Your task to perform on an android device: Go to CNN.com Image 0: 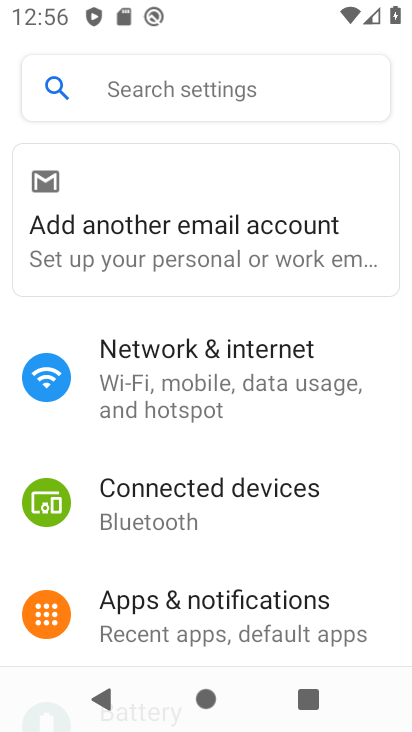
Step 0: press back button
Your task to perform on an android device: Go to CNN.com Image 1: 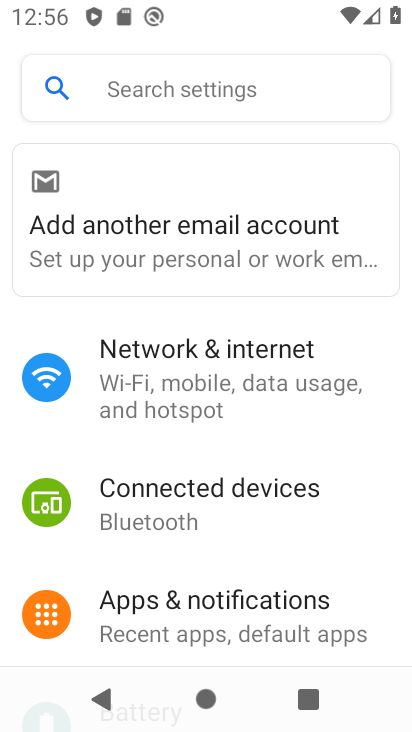
Step 1: press back button
Your task to perform on an android device: Go to CNN.com Image 2: 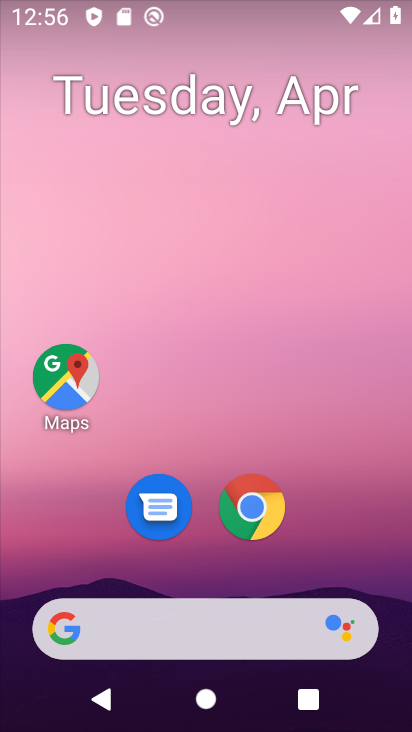
Step 2: click (263, 491)
Your task to perform on an android device: Go to CNN.com Image 3: 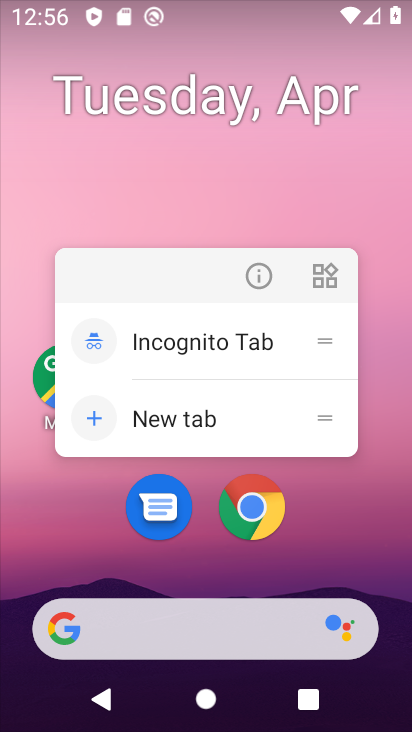
Step 3: click (241, 503)
Your task to perform on an android device: Go to CNN.com Image 4: 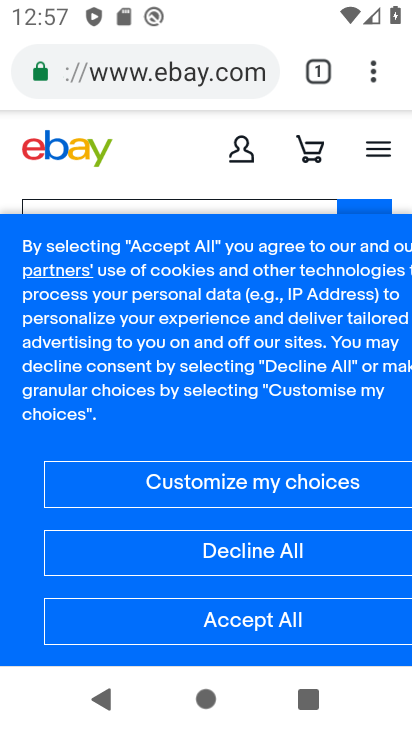
Step 4: click (259, 83)
Your task to perform on an android device: Go to CNN.com Image 5: 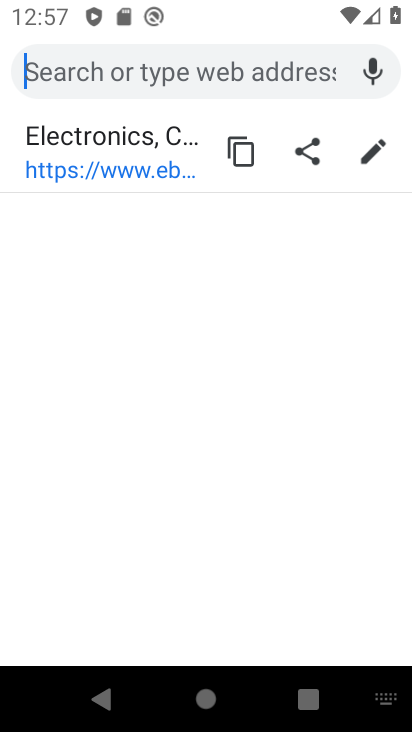
Step 5: type "cnn.com"
Your task to perform on an android device: Go to CNN.com Image 6: 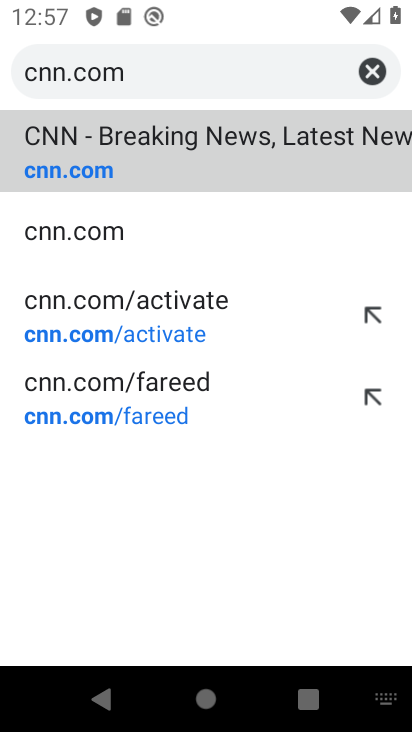
Step 6: click (140, 232)
Your task to perform on an android device: Go to CNN.com Image 7: 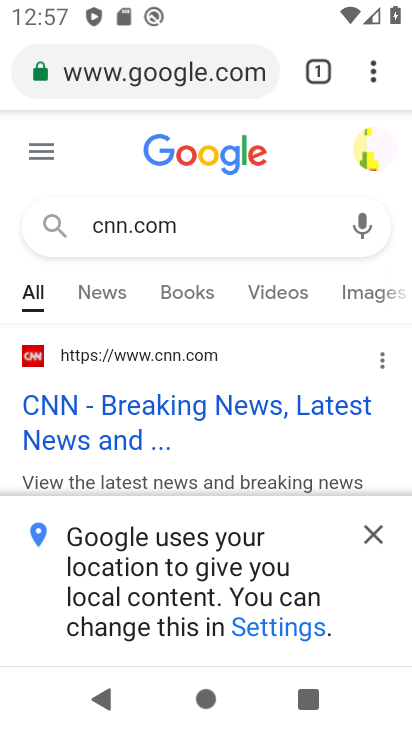
Step 7: click (262, 403)
Your task to perform on an android device: Go to CNN.com Image 8: 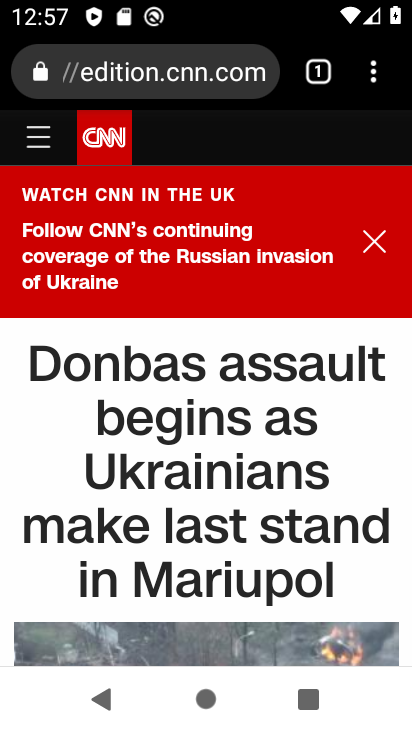
Step 8: task complete